Your task to perform on an android device: toggle location history Image 0: 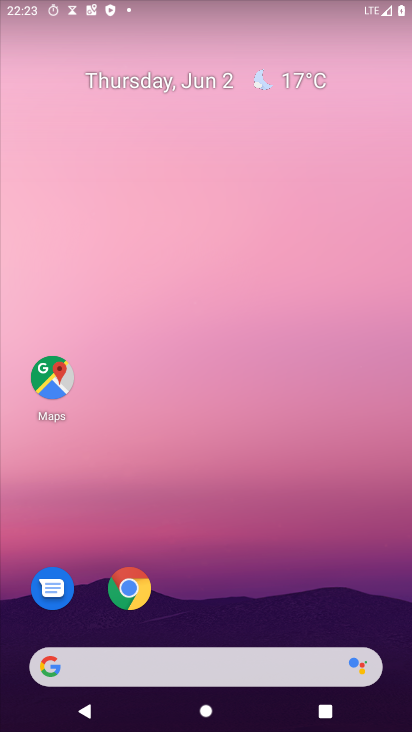
Step 0: drag from (238, 569) to (306, 1)
Your task to perform on an android device: toggle location history Image 1: 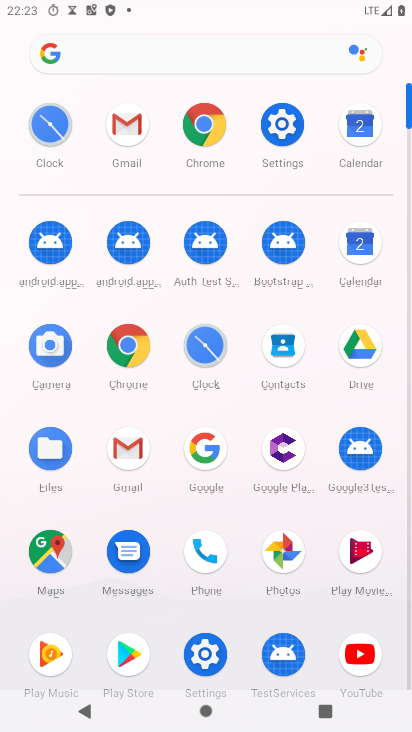
Step 1: click (280, 128)
Your task to perform on an android device: toggle location history Image 2: 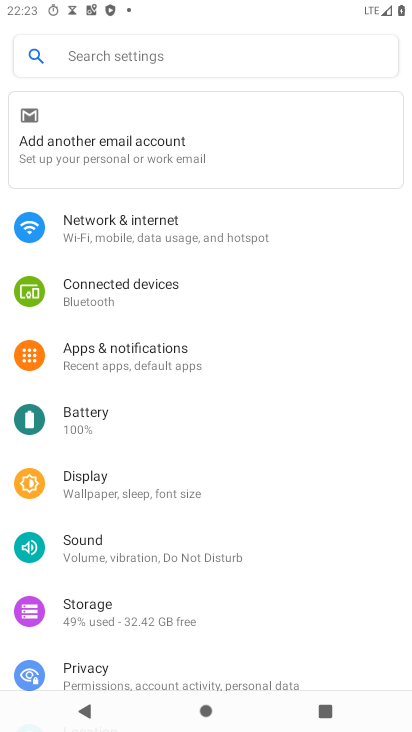
Step 2: drag from (114, 618) to (151, 82)
Your task to perform on an android device: toggle location history Image 3: 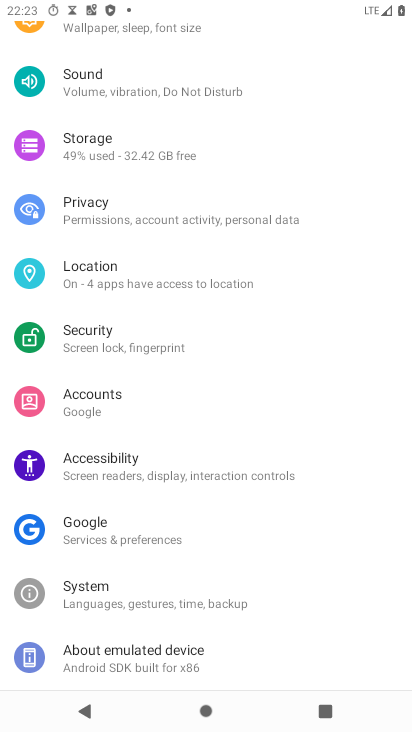
Step 3: click (144, 280)
Your task to perform on an android device: toggle location history Image 4: 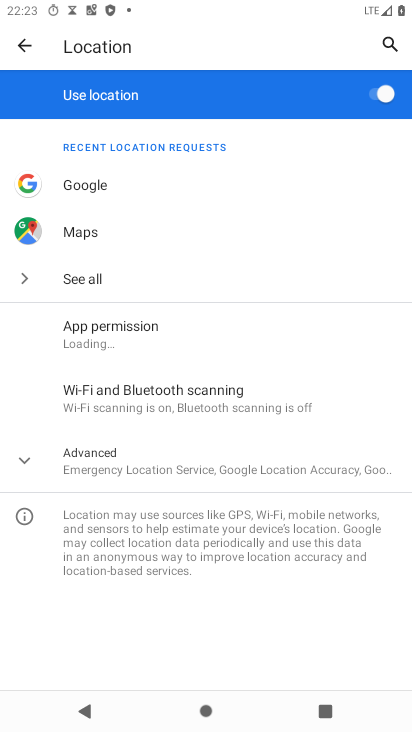
Step 4: click (143, 464)
Your task to perform on an android device: toggle location history Image 5: 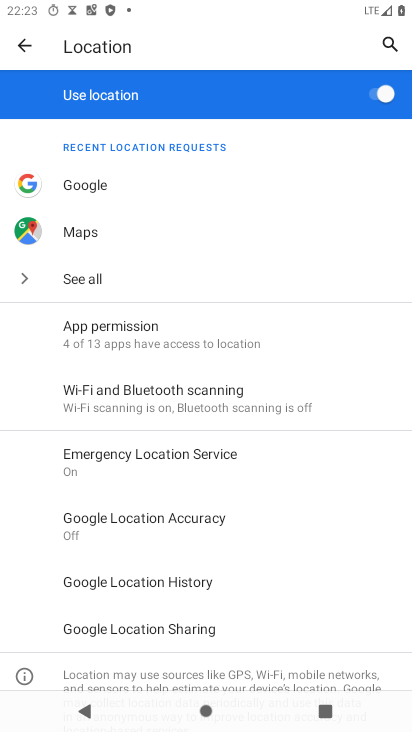
Step 5: click (114, 576)
Your task to perform on an android device: toggle location history Image 6: 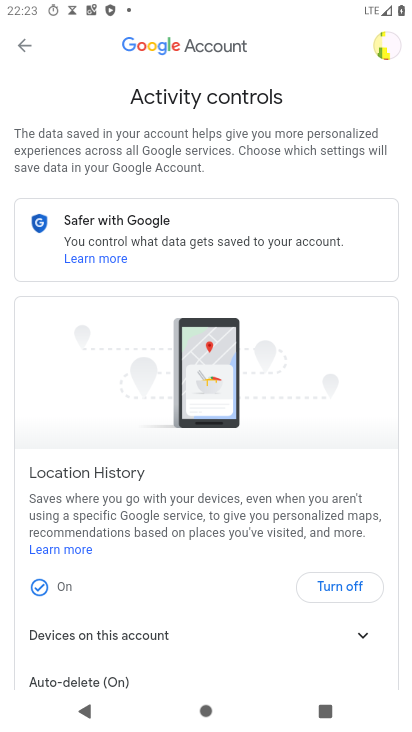
Step 6: drag from (190, 519) to (257, 229)
Your task to perform on an android device: toggle location history Image 7: 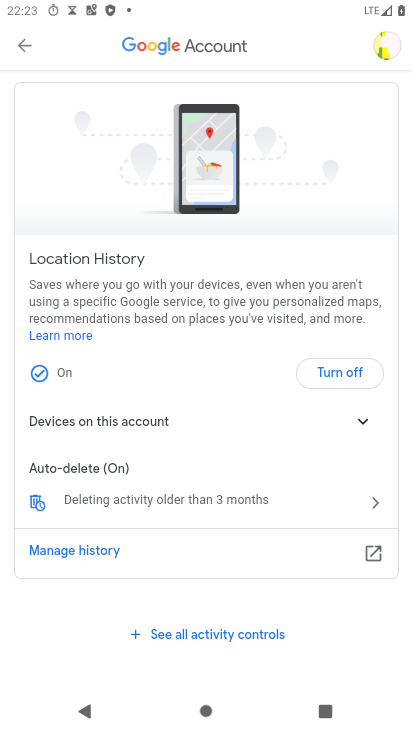
Step 7: click (344, 366)
Your task to perform on an android device: toggle location history Image 8: 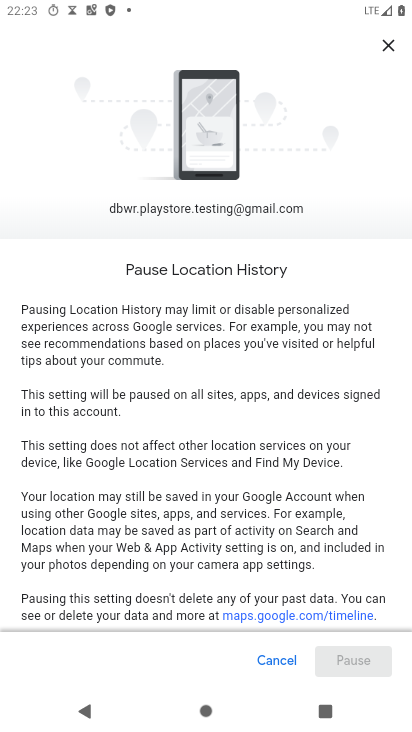
Step 8: drag from (196, 561) to (253, 67)
Your task to perform on an android device: toggle location history Image 9: 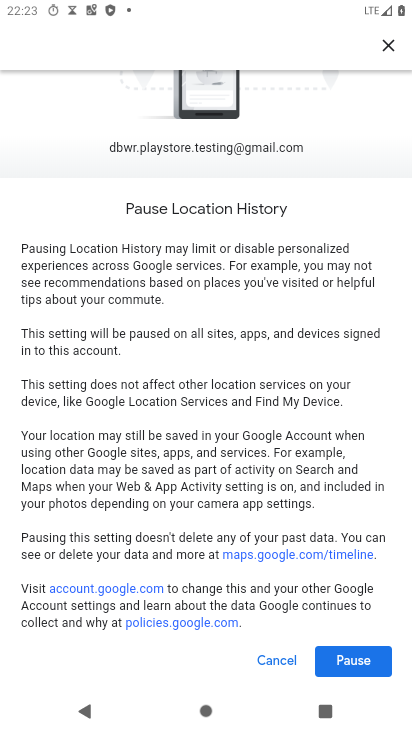
Step 9: click (346, 655)
Your task to perform on an android device: toggle location history Image 10: 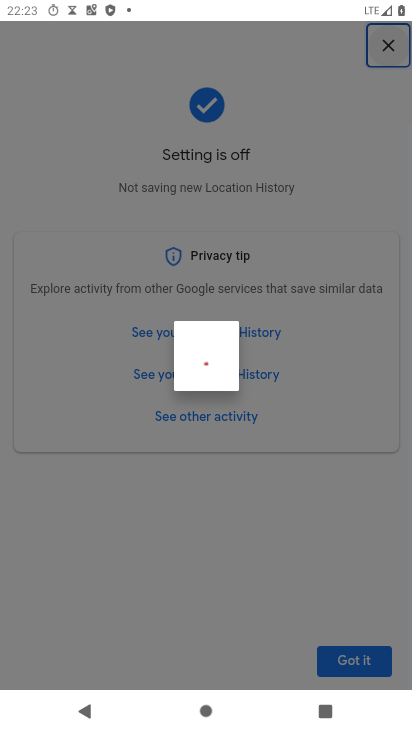
Step 10: drag from (199, 587) to (277, 150)
Your task to perform on an android device: toggle location history Image 11: 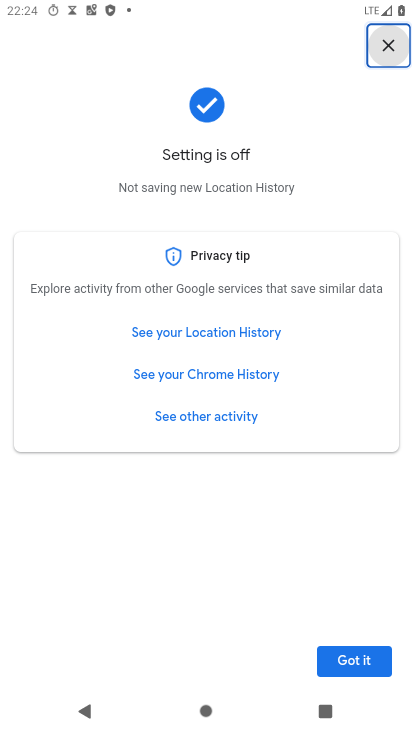
Step 11: click (334, 652)
Your task to perform on an android device: toggle location history Image 12: 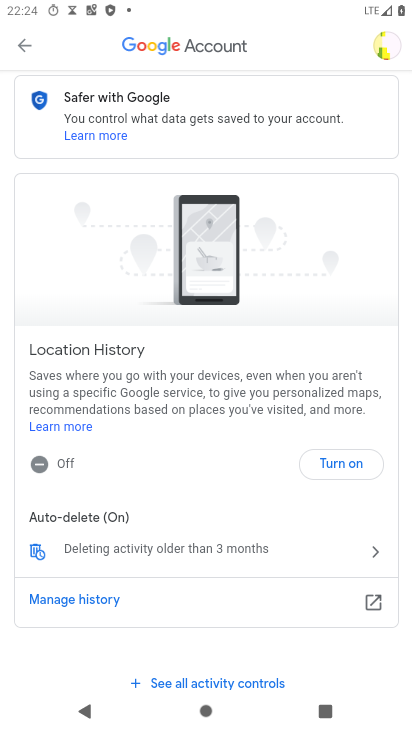
Step 12: task complete